Your task to perform on an android device: all mails in gmail Image 0: 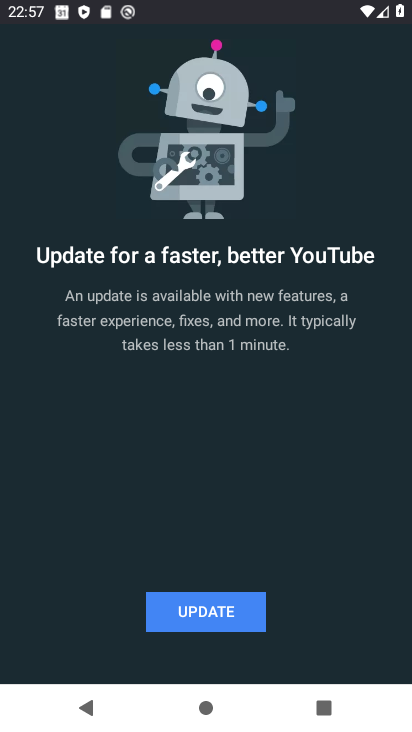
Step 0: press back button
Your task to perform on an android device: all mails in gmail Image 1: 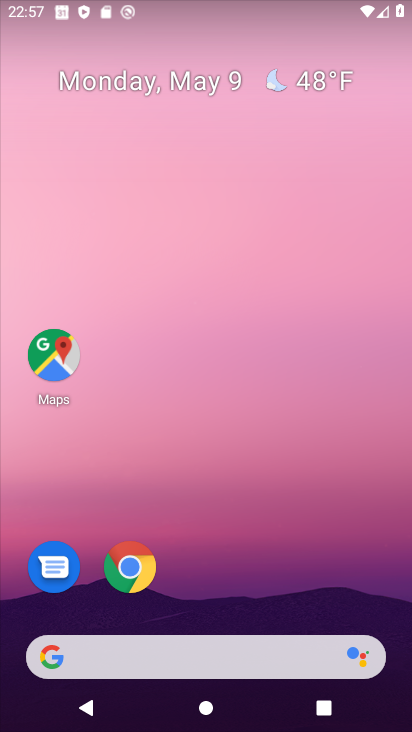
Step 1: drag from (247, 551) to (178, 89)
Your task to perform on an android device: all mails in gmail Image 2: 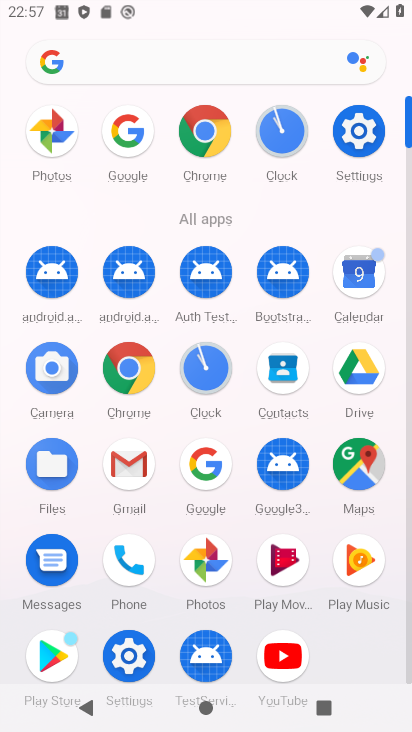
Step 2: click (130, 466)
Your task to perform on an android device: all mails in gmail Image 3: 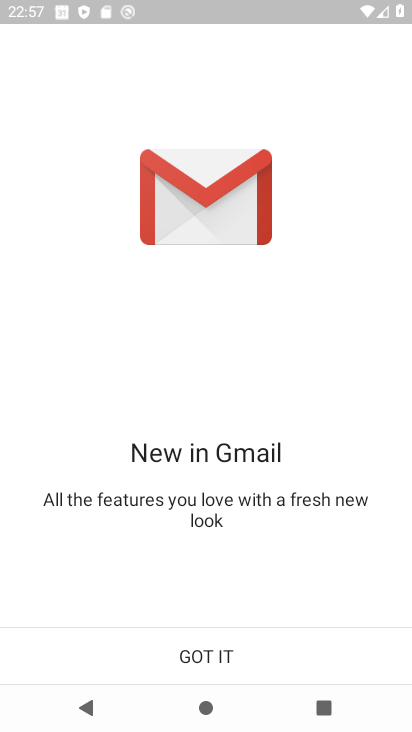
Step 3: click (189, 650)
Your task to perform on an android device: all mails in gmail Image 4: 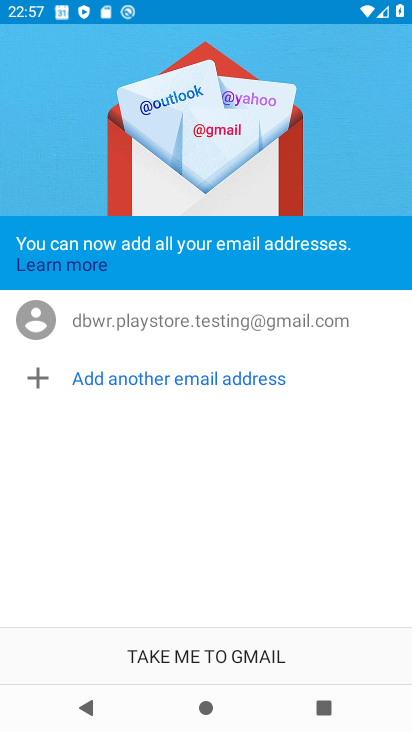
Step 4: click (189, 650)
Your task to perform on an android device: all mails in gmail Image 5: 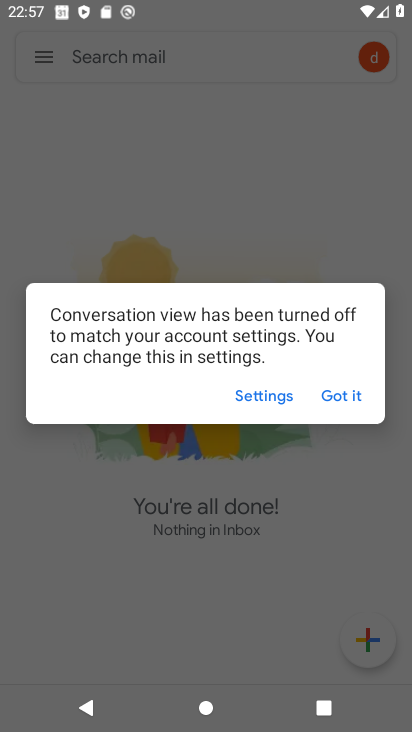
Step 5: click (343, 398)
Your task to perform on an android device: all mails in gmail Image 6: 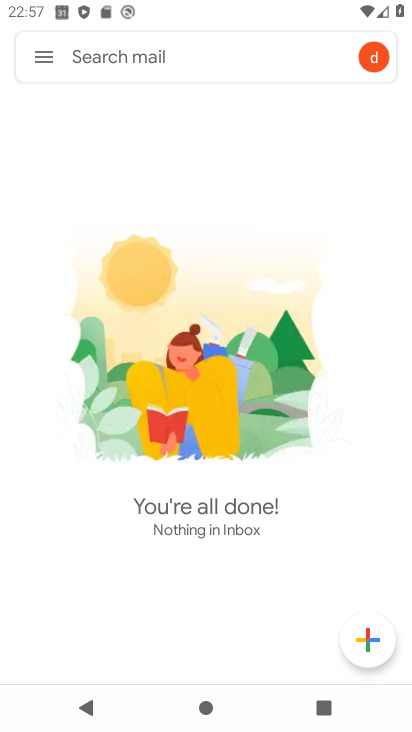
Step 6: click (39, 60)
Your task to perform on an android device: all mails in gmail Image 7: 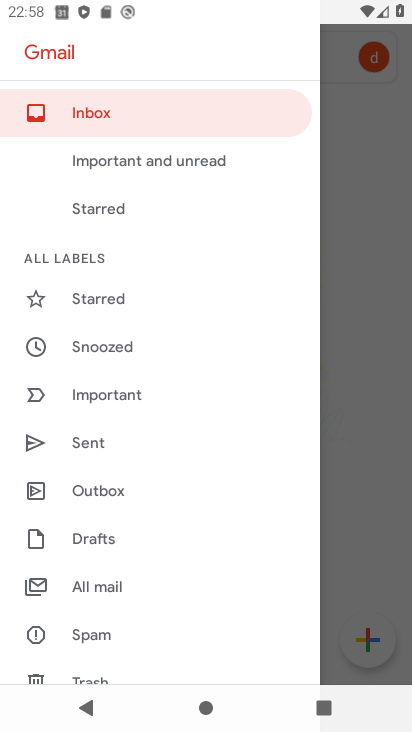
Step 7: drag from (115, 436) to (143, 355)
Your task to perform on an android device: all mails in gmail Image 8: 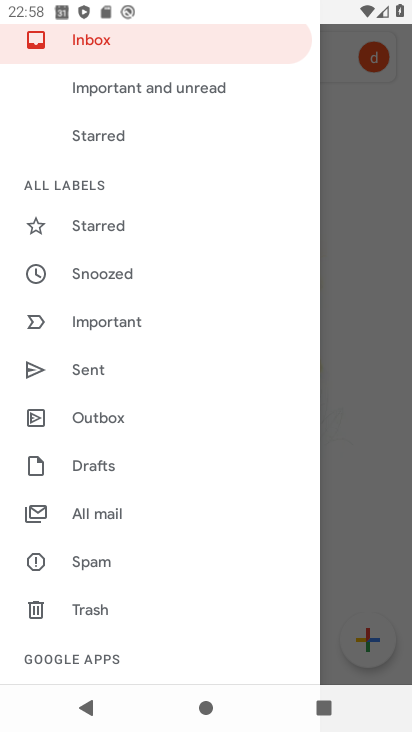
Step 8: click (96, 508)
Your task to perform on an android device: all mails in gmail Image 9: 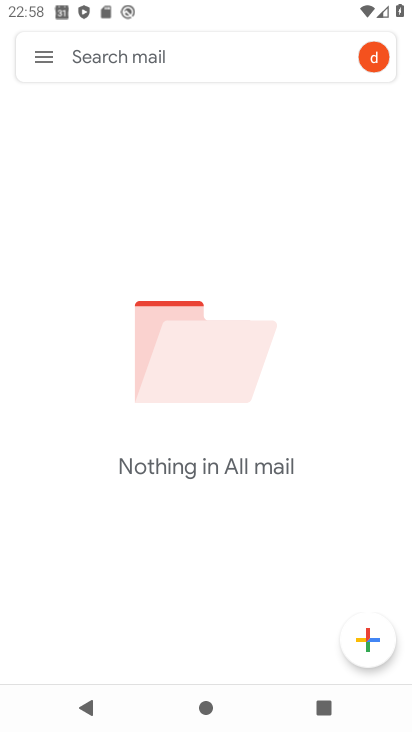
Step 9: task complete